Your task to perform on an android device: Open battery settings Image 0: 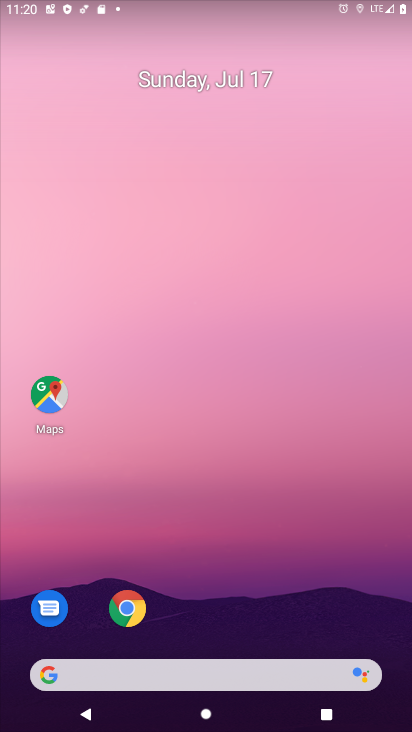
Step 0: drag from (214, 656) to (362, 326)
Your task to perform on an android device: Open battery settings Image 1: 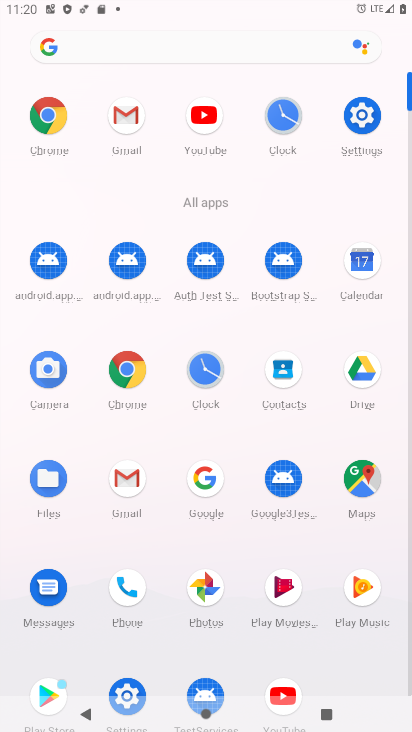
Step 1: click (355, 126)
Your task to perform on an android device: Open battery settings Image 2: 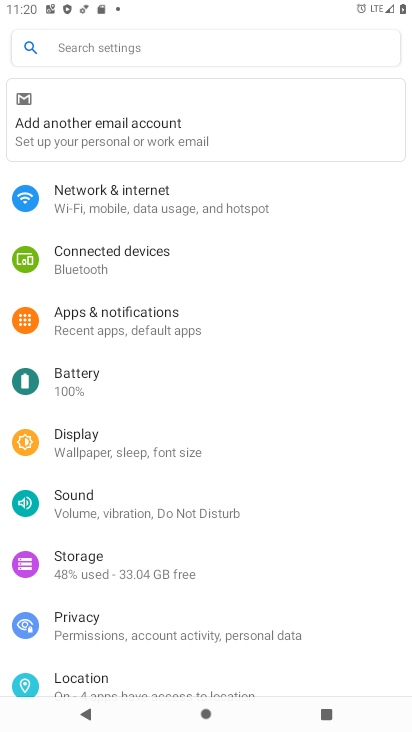
Step 2: click (95, 374)
Your task to perform on an android device: Open battery settings Image 3: 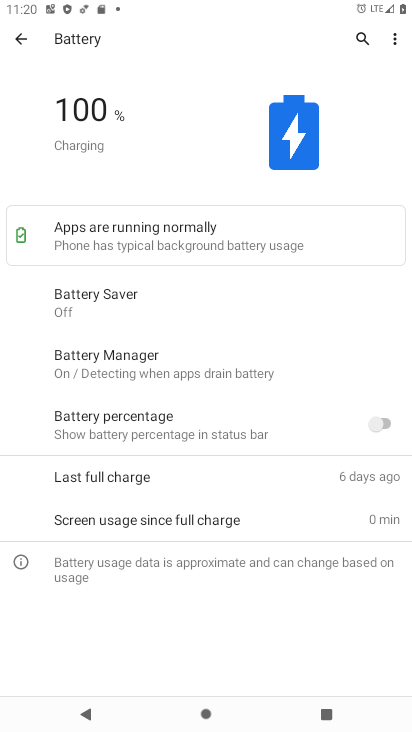
Step 3: task complete